Your task to perform on an android device: turn off picture-in-picture Image 0: 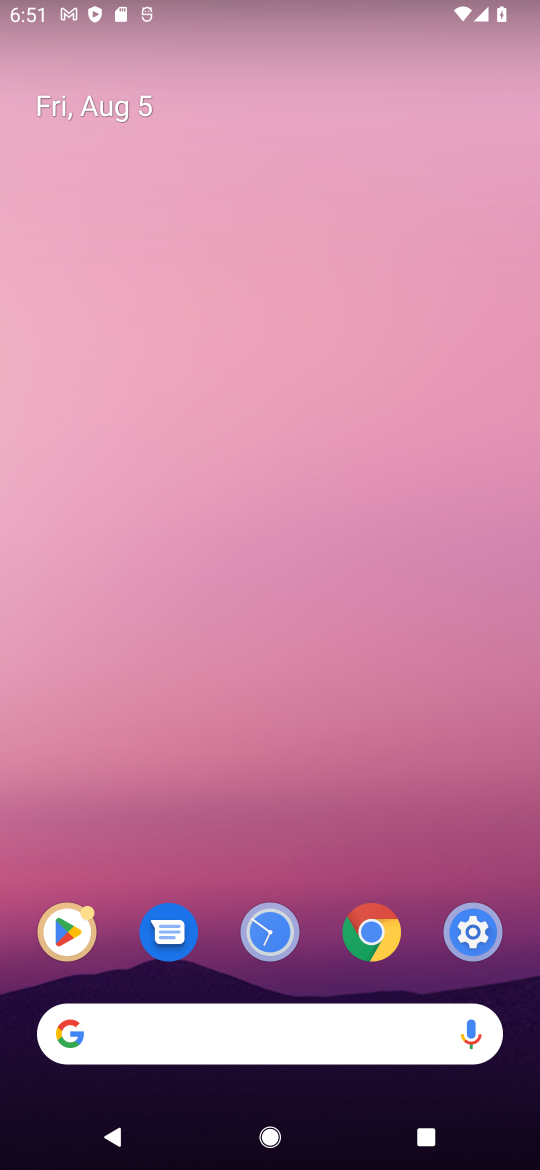
Step 0: click (391, 940)
Your task to perform on an android device: turn off picture-in-picture Image 1: 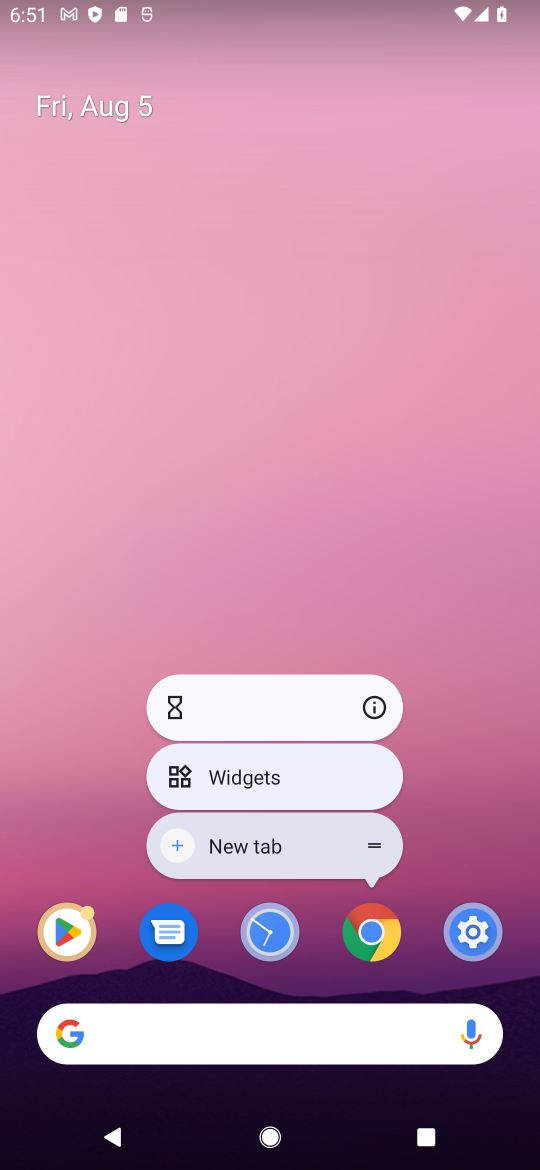
Step 1: click (383, 712)
Your task to perform on an android device: turn off picture-in-picture Image 2: 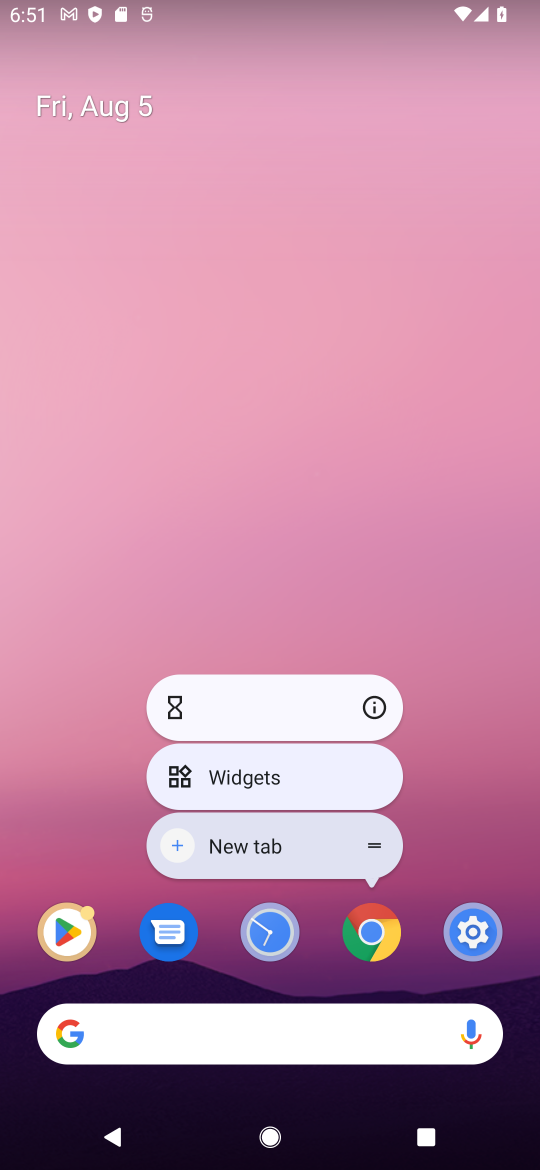
Step 2: click (443, 794)
Your task to perform on an android device: turn off picture-in-picture Image 3: 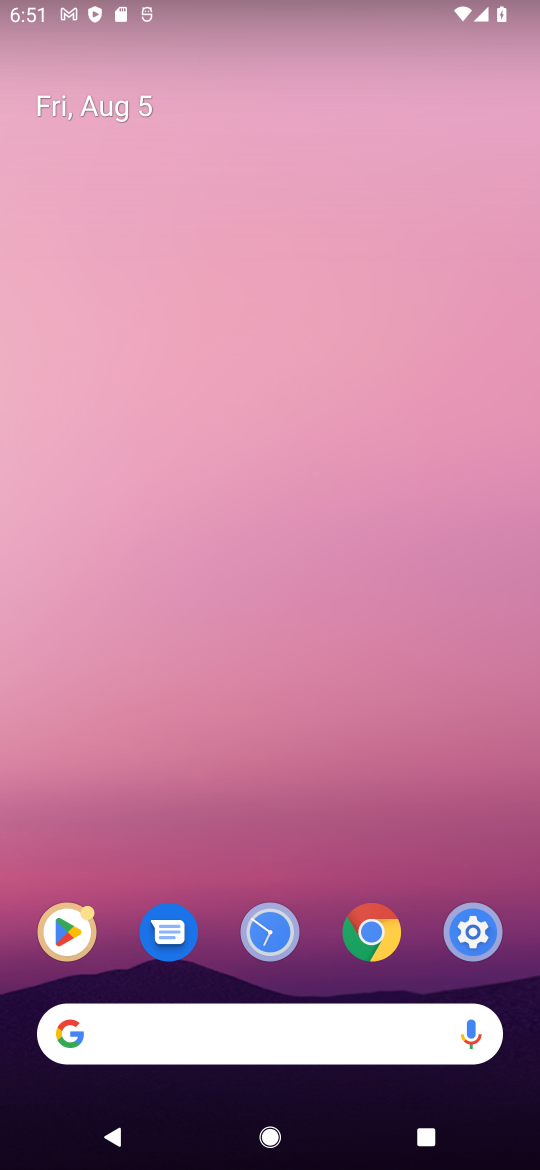
Step 3: drag from (351, 672) to (307, 6)
Your task to perform on an android device: turn off picture-in-picture Image 4: 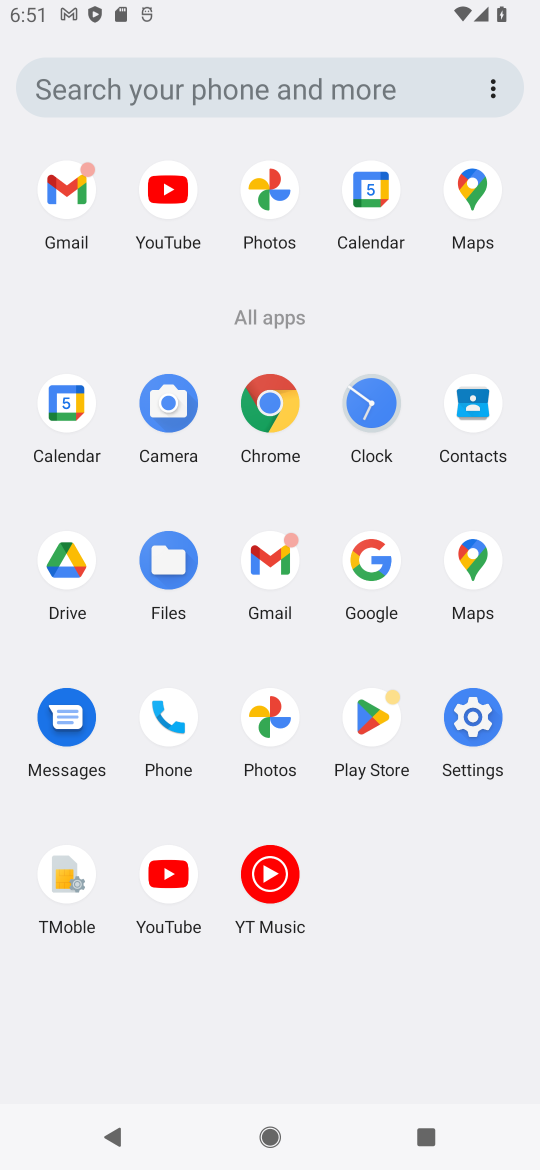
Step 4: click (271, 400)
Your task to perform on an android device: turn off picture-in-picture Image 5: 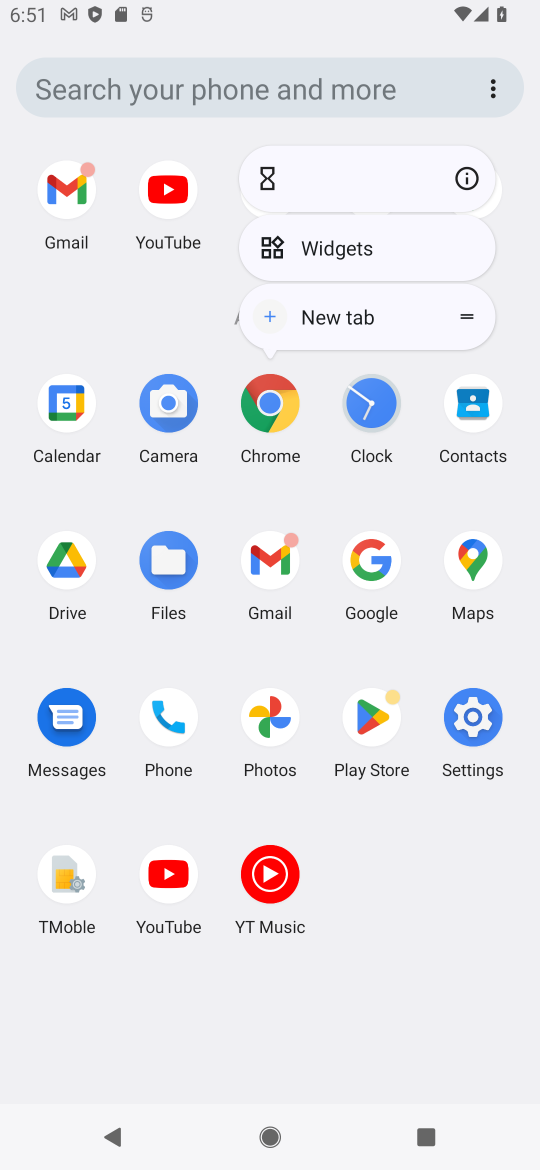
Step 5: click (463, 174)
Your task to perform on an android device: turn off picture-in-picture Image 6: 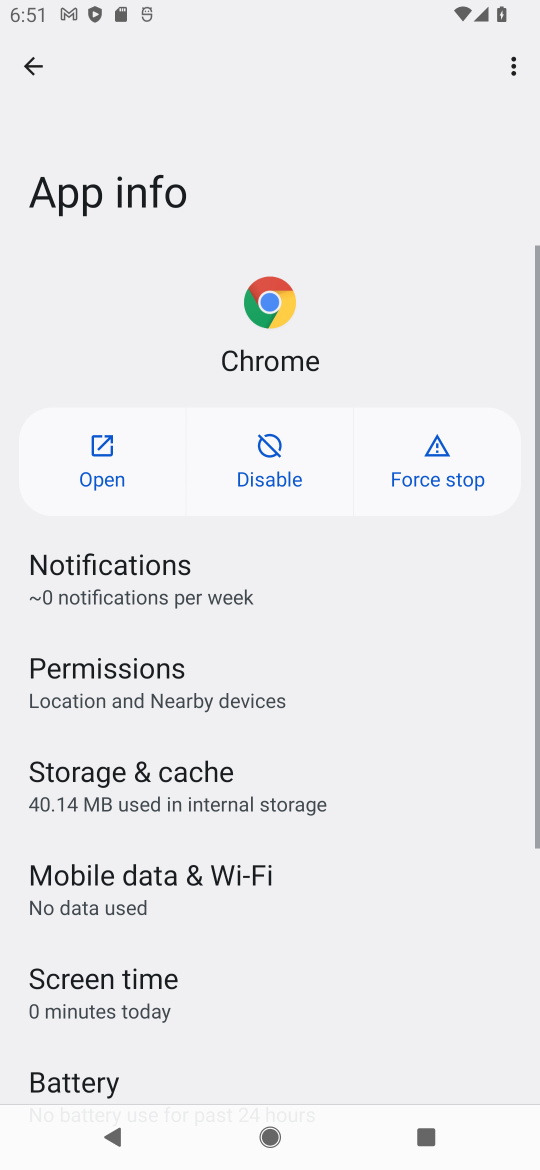
Step 6: drag from (392, 874) to (403, 216)
Your task to perform on an android device: turn off picture-in-picture Image 7: 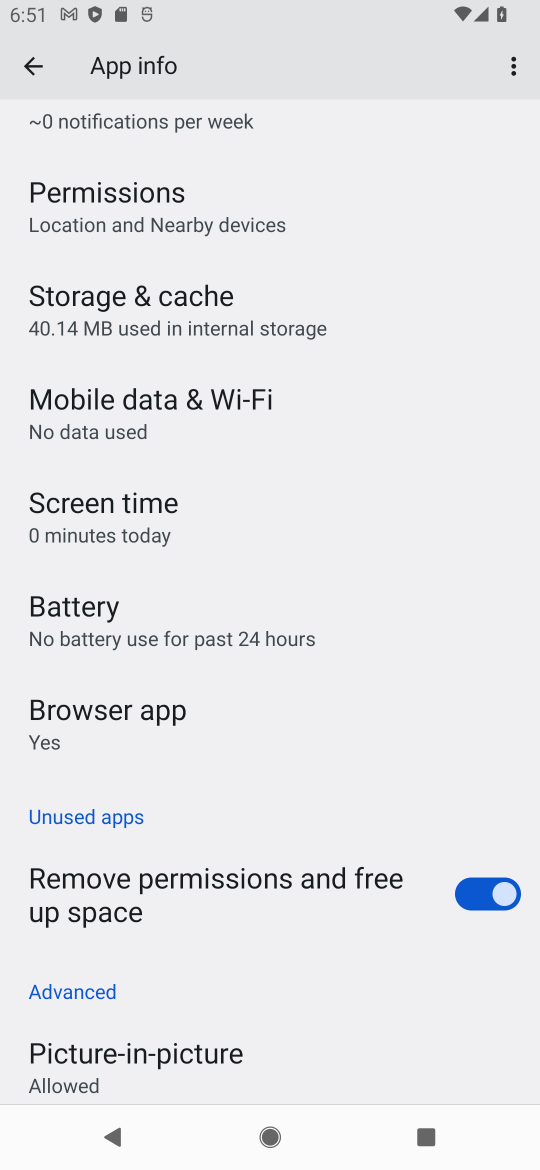
Step 7: click (156, 1064)
Your task to perform on an android device: turn off picture-in-picture Image 8: 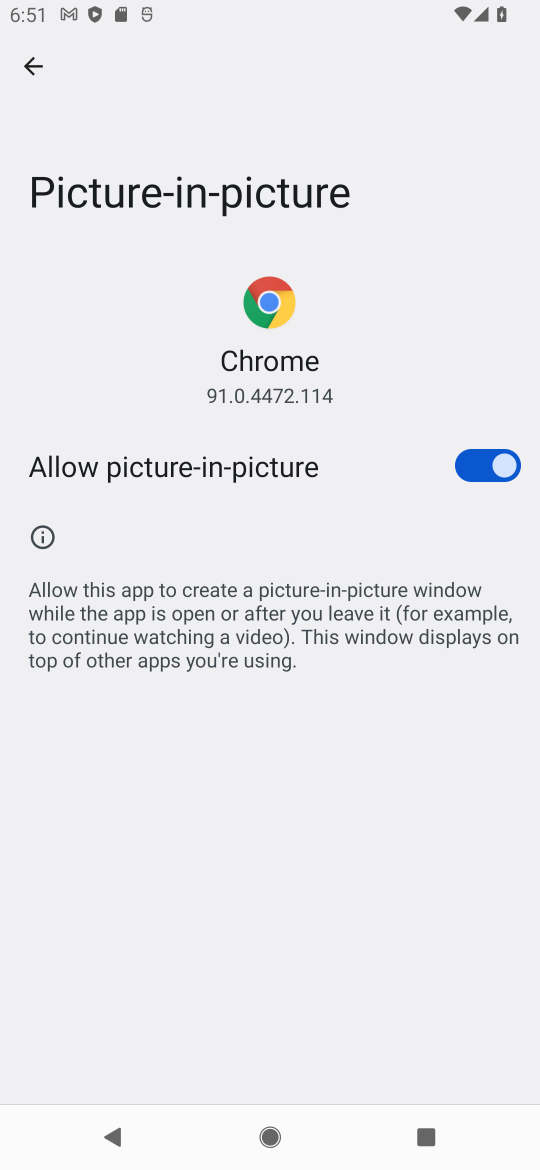
Step 8: click (487, 473)
Your task to perform on an android device: turn off picture-in-picture Image 9: 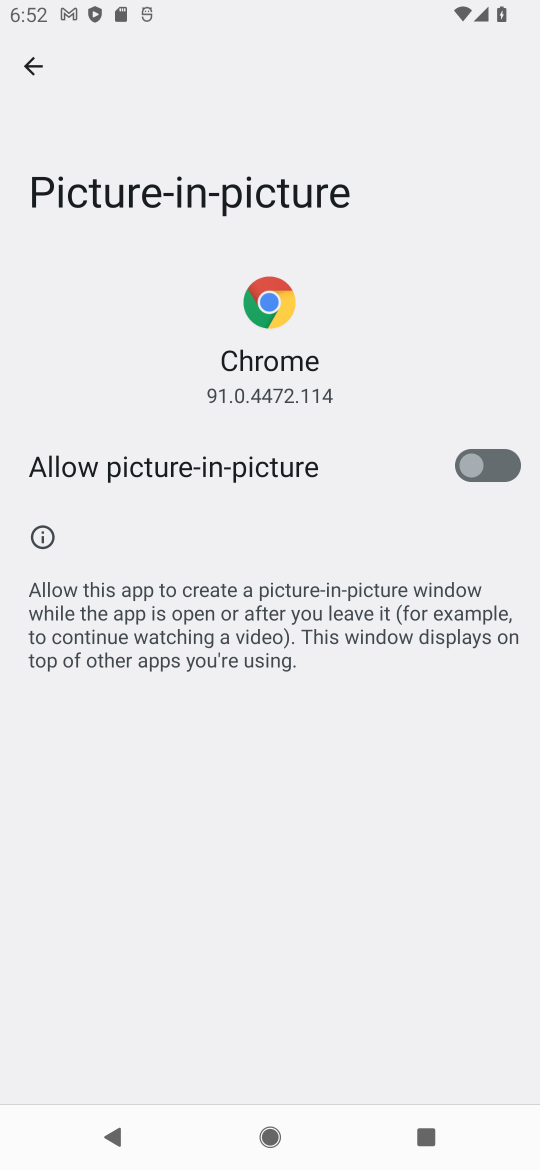
Step 9: task complete